Your task to perform on an android device: toggle translation in the chrome app Image 0: 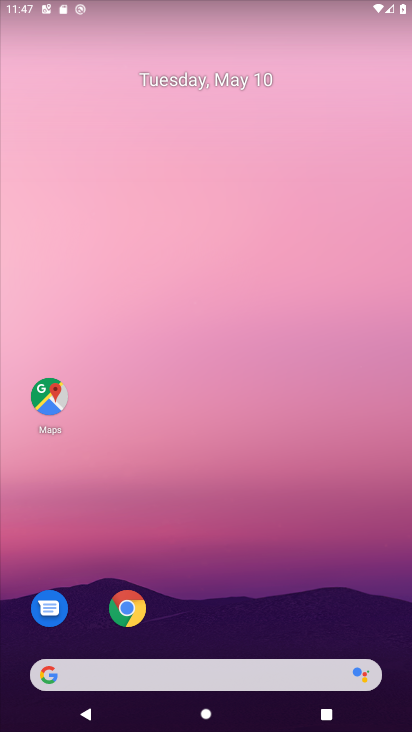
Step 0: drag from (242, 532) to (189, 357)
Your task to perform on an android device: toggle translation in the chrome app Image 1: 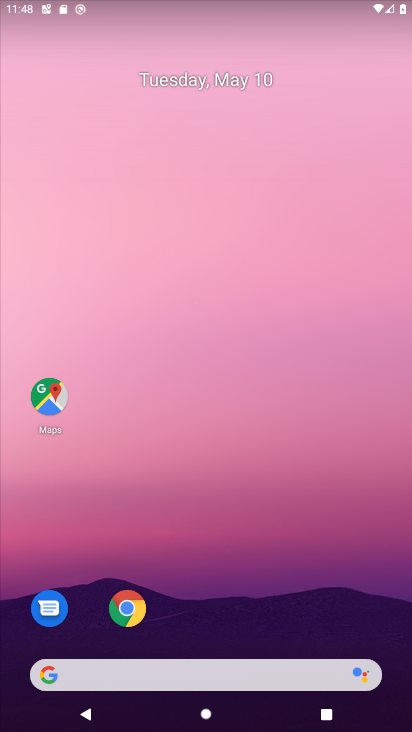
Step 1: click (130, 617)
Your task to perform on an android device: toggle translation in the chrome app Image 2: 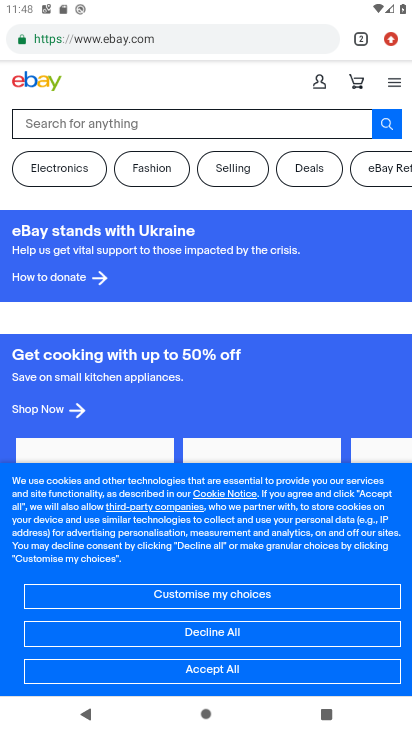
Step 2: drag from (392, 38) to (303, 521)
Your task to perform on an android device: toggle translation in the chrome app Image 3: 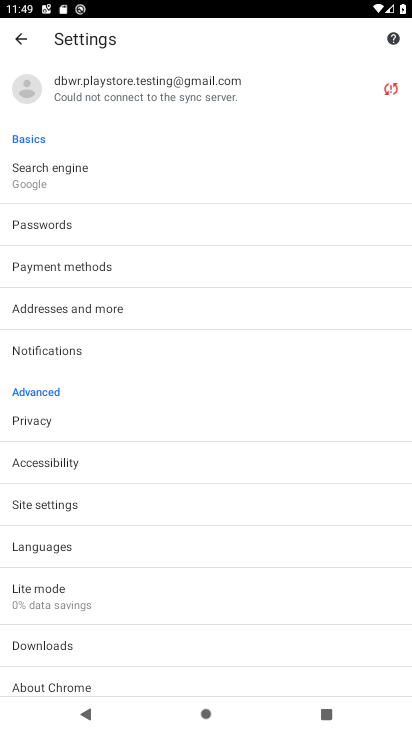
Step 3: click (50, 547)
Your task to perform on an android device: toggle translation in the chrome app Image 4: 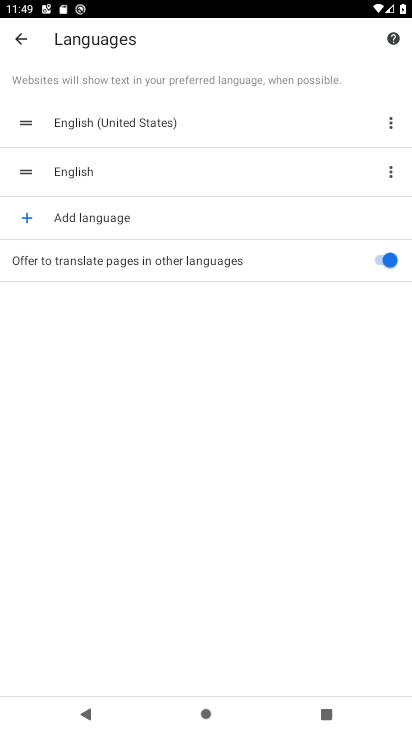
Step 4: click (370, 262)
Your task to perform on an android device: toggle translation in the chrome app Image 5: 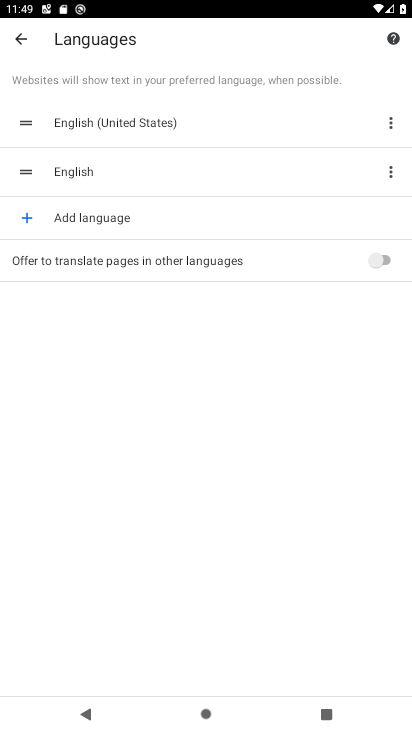
Step 5: task complete